Your task to perform on an android device: change the clock display to show seconds Image 0: 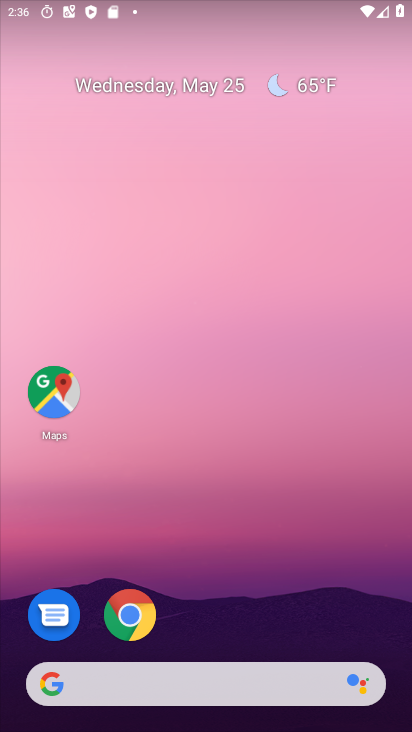
Step 0: drag from (402, 712) to (400, 60)
Your task to perform on an android device: change the clock display to show seconds Image 1: 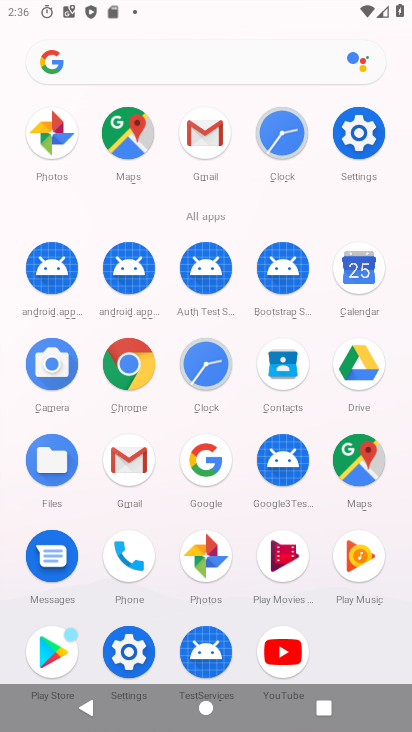
Step 1: click (177, 376)
Your task to perform on an android device: change the clock display to show seconds Image 2: 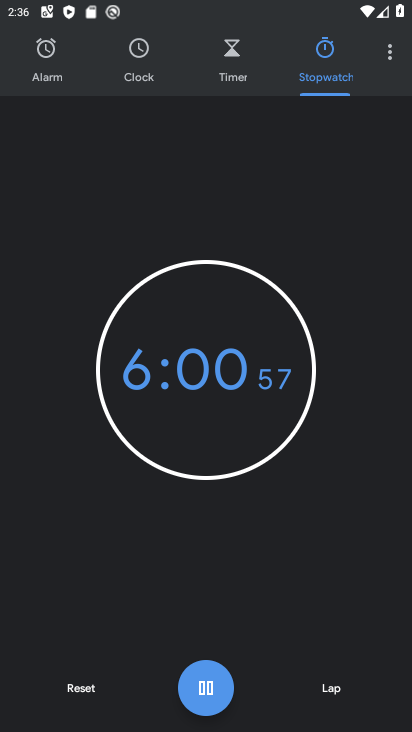
Step 2: click (384, 48)
Your task to perform on an android device: change the clock display to show seconds Image 3: 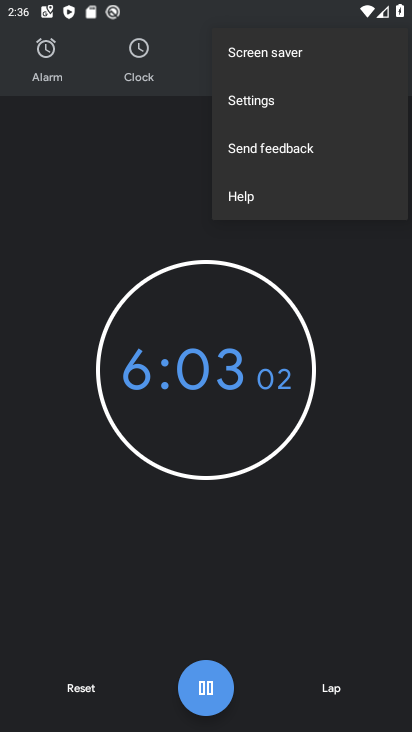
Step 3: click (254, 98)
Your task to perform on an android device: change the clock display to show seconds Image 4: 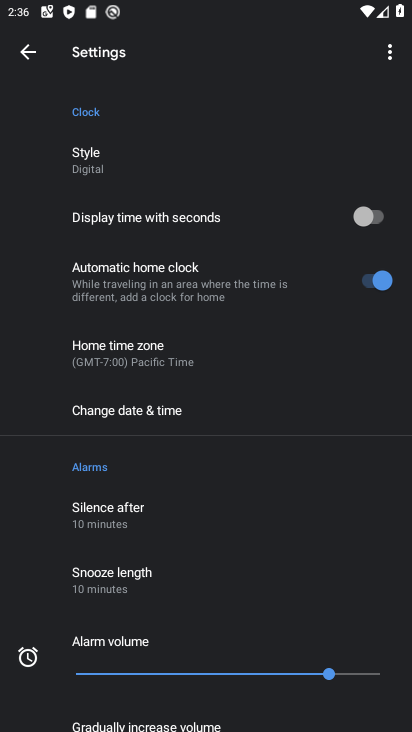
Step 4: click (375, 223)
Your task to perform on an android device: change the clock display to show seconds Image 5: 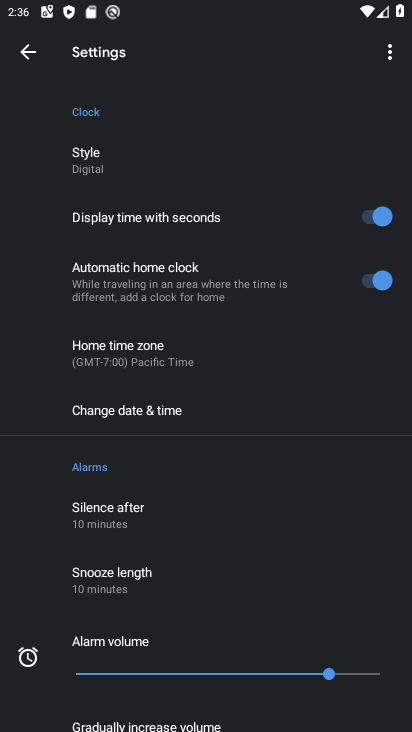
Step 5: task complete